Your task to perform on an android device: turn off location history Image 0: 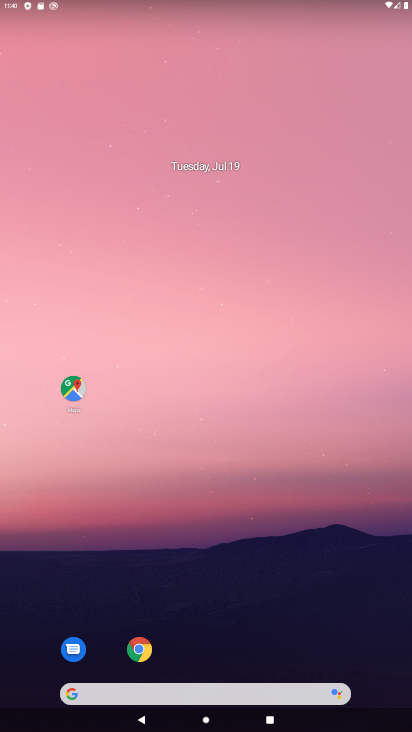
Step 0: press home button
Your task to perform on an android device: turn off location history Image 1: 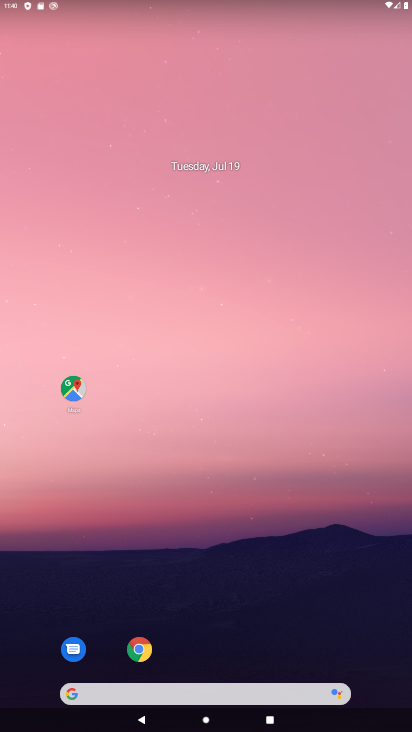
Step 1: drag from (241, 631) to (276, 153)
Your task to perform on an android device: turn off location history Image 2: 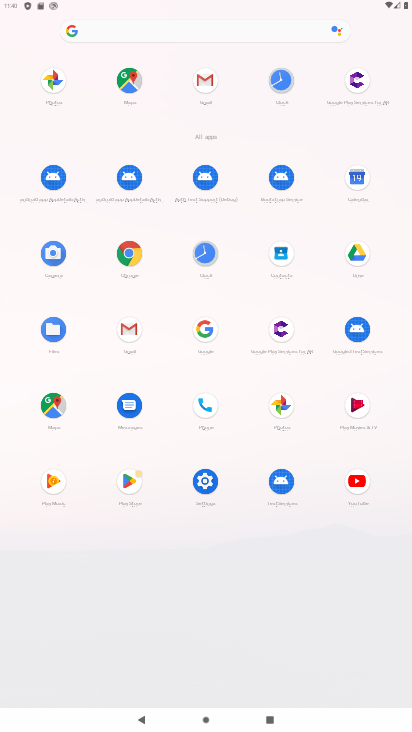
Step 2: click (212, 484)
Your task to perform on an android device: turn off location history Image 3: 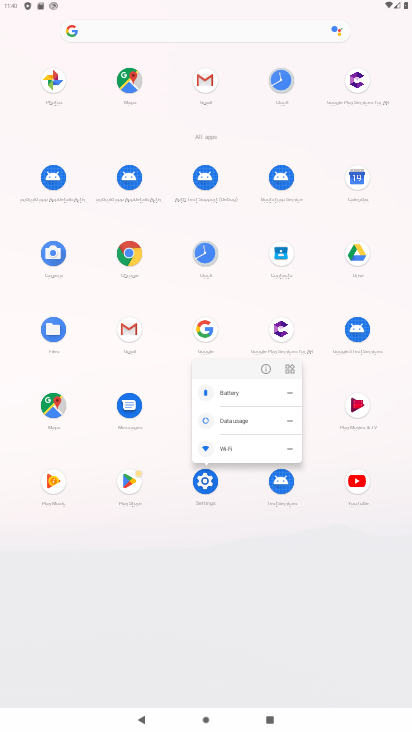
Step 3: click (212, 484)
Your task to perform on an android device: turn off location history Image 4: 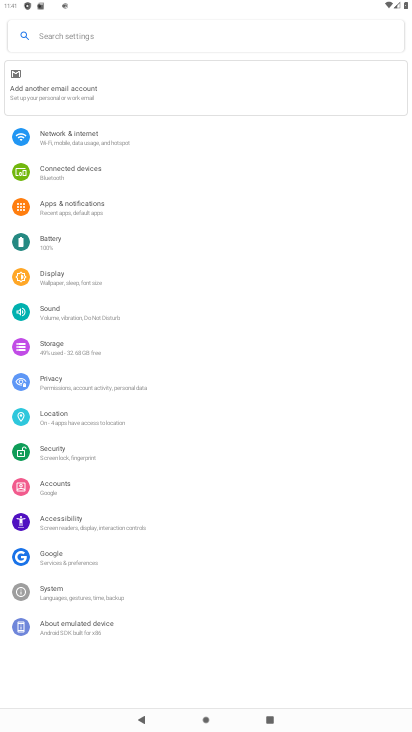
Step 4: click (49, 423)
Your task to perform on an android device: turn off location history Image 5: 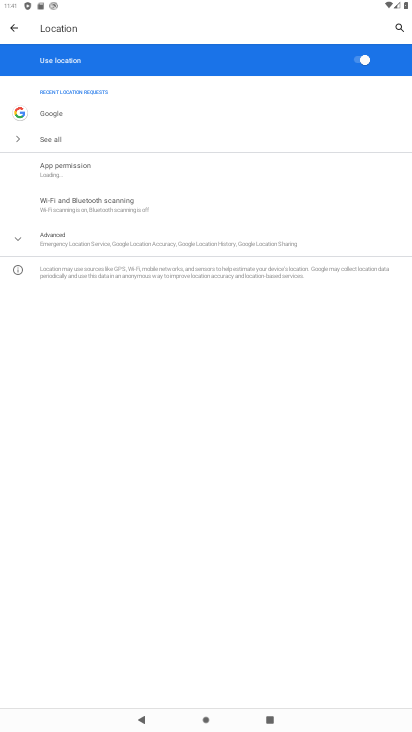
Step 5: click (35, 239)
Your task to perform on an android device: turn off location history Image 6: 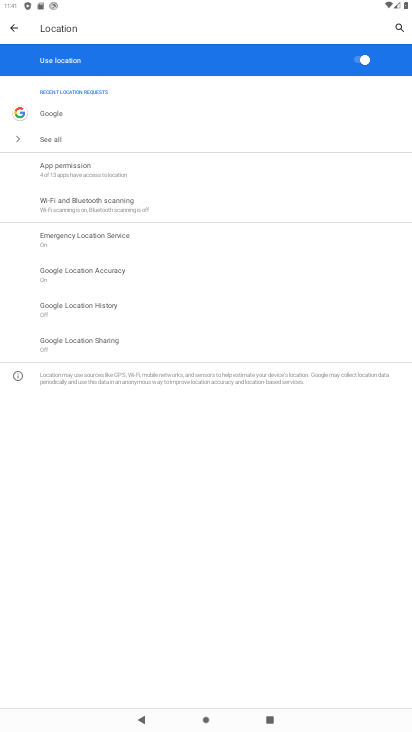
Step 6: click (96, 307)
Your task to perform on an android device: turn off location history Image 7: 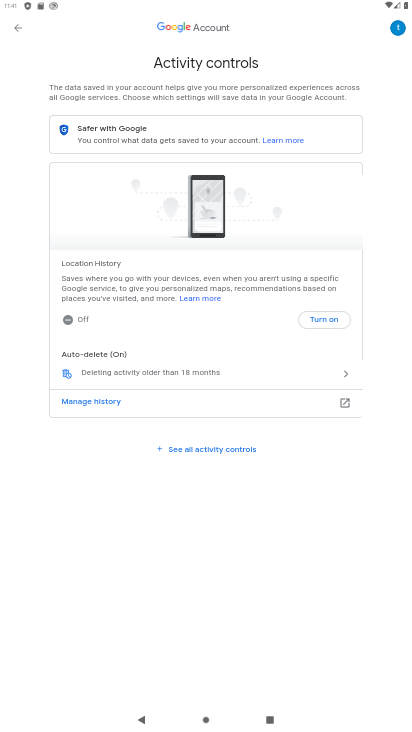
Step 7: task complete